Your task to perform on an android device: check the backup settings in the google photos Image 0: 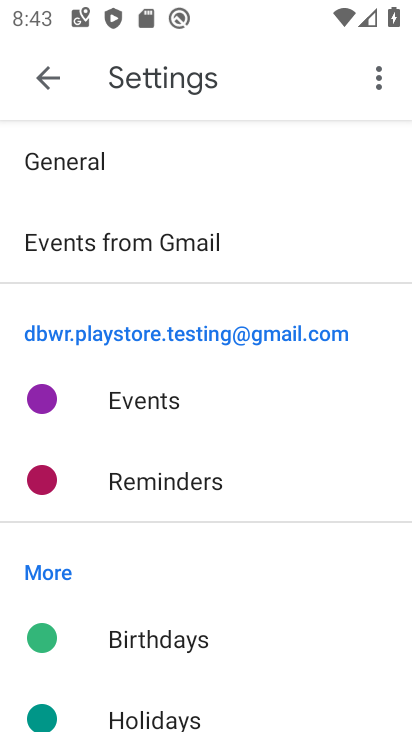
Step 0: press home button
Your task to perform on an android device: check the backup settings in the google photos Image 1: 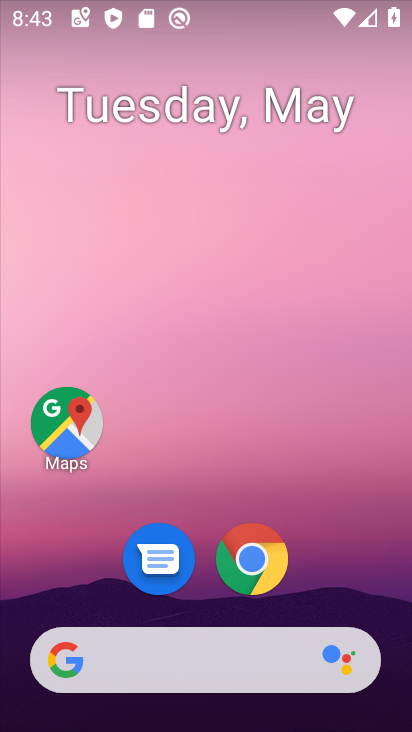
Step 1: drag from (252, 680) to (239, 81)
Your task to perform on an android device: check the backup settings in the google photos Image 2: 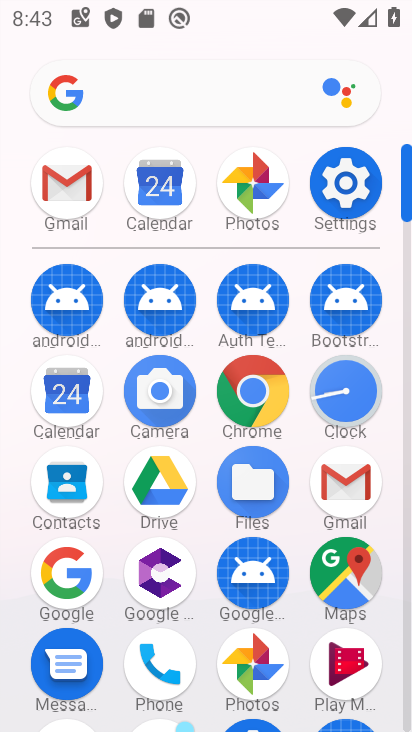
Step 2: click (265, 205)
Your task to perform on an android device: check the backup settings in the google photos Image 3: 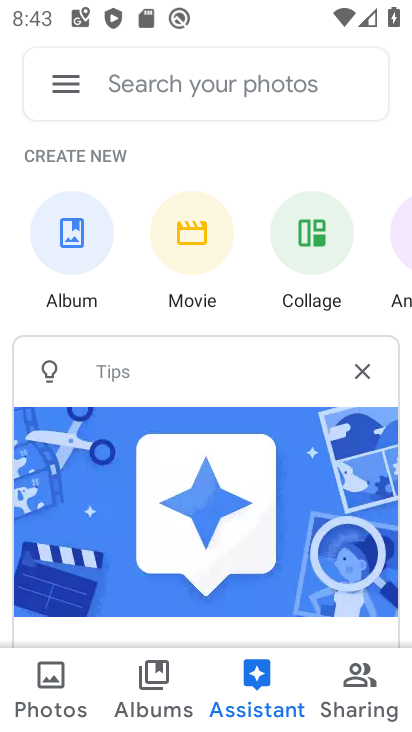
Step 3: click (54, 84)
Your task to perform on an android device: check the backup settings in the google photos Image 4: 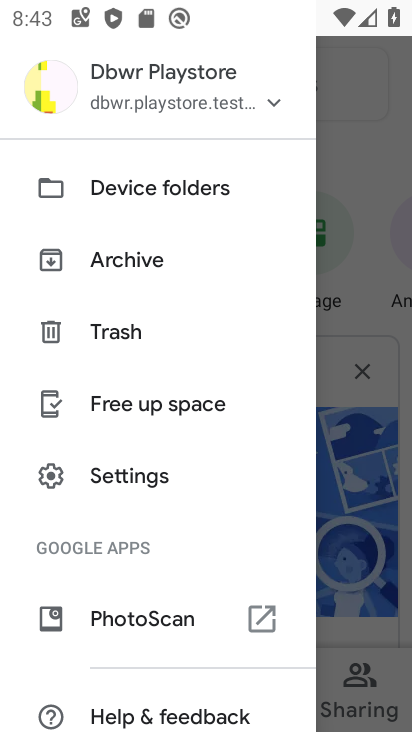
Step 4: click (127, 486)
Your task to perform on an android device: check the backup settings in the google photos Image 5: 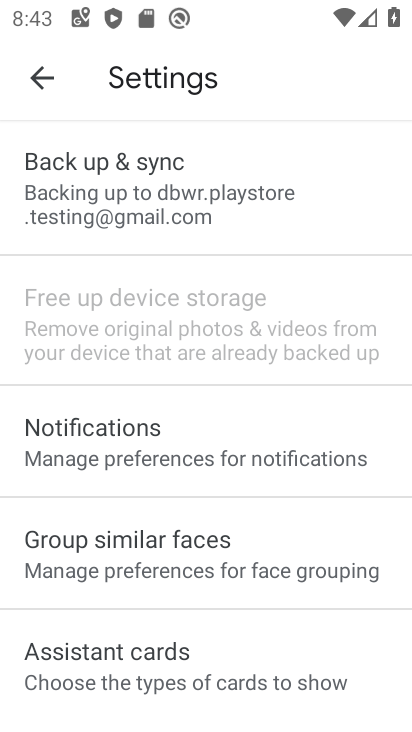
Step 5: click (141, 197)
Your task to perform on an android device: check the backup settings in the google photos Image 6: 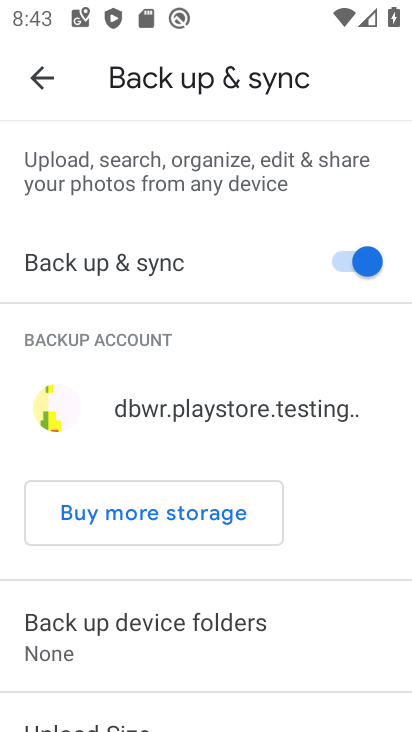
Step 6: task complete